Your task to perform on an android device: Do I have any events tomorrow? Image 0: 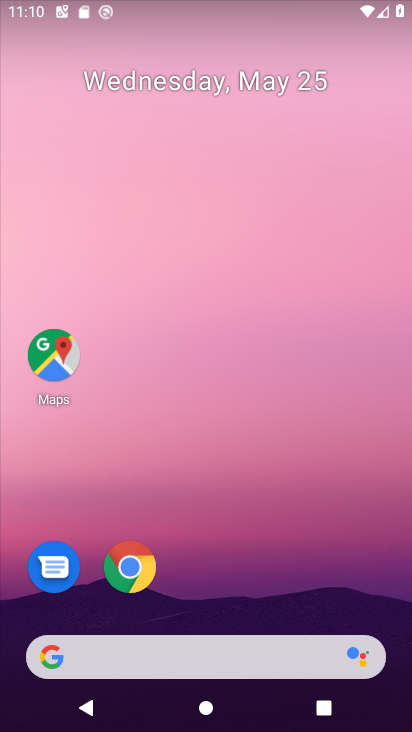
Step 0: drag from (231, 542) to (254, 55)
Your task to perform on an android device: Do I have any events tomorrow? Image 1: 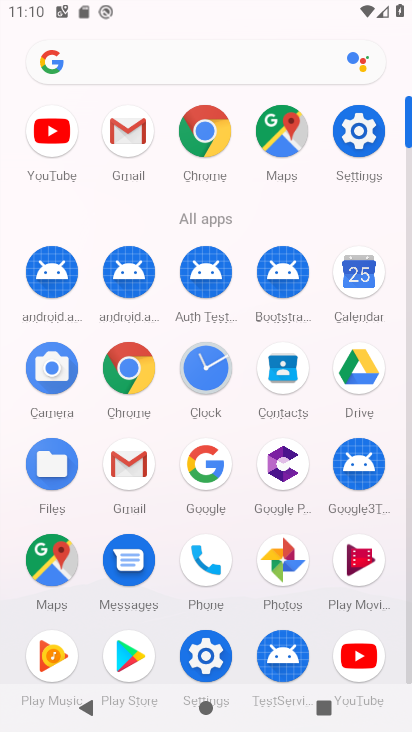
Step 1: click (353, 289)
Your task to perform on an android device: Do I have any events tomorrow? Image 2: 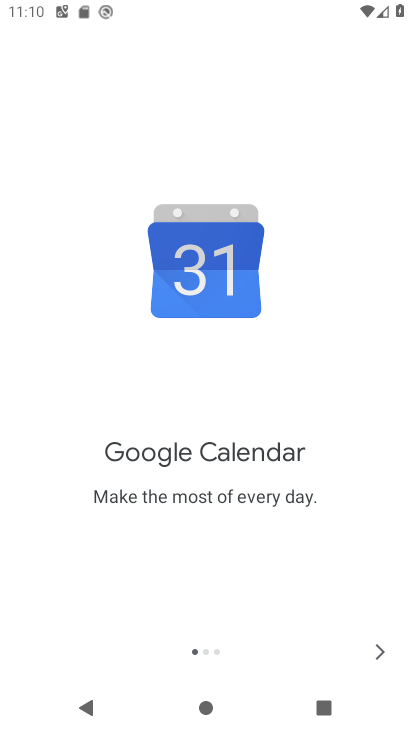
Step 2: click (381, 645)
Your task to perform on an android device: Do I have any events tomorrow? Image 3: 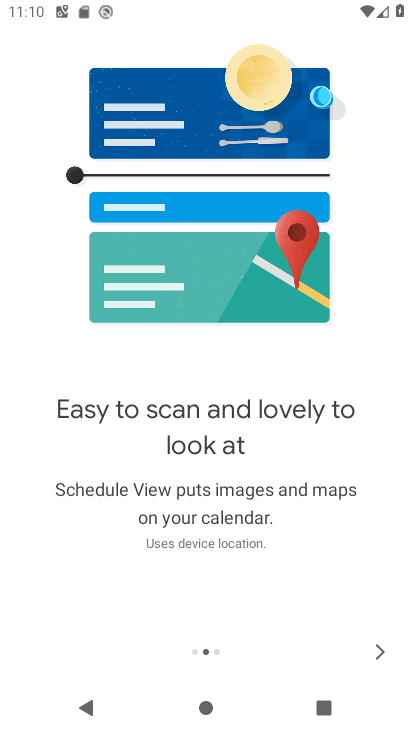
Step 3: click (381, 645)
Your task to perform on an android device: Do I have any events tomorrow? Image 4: 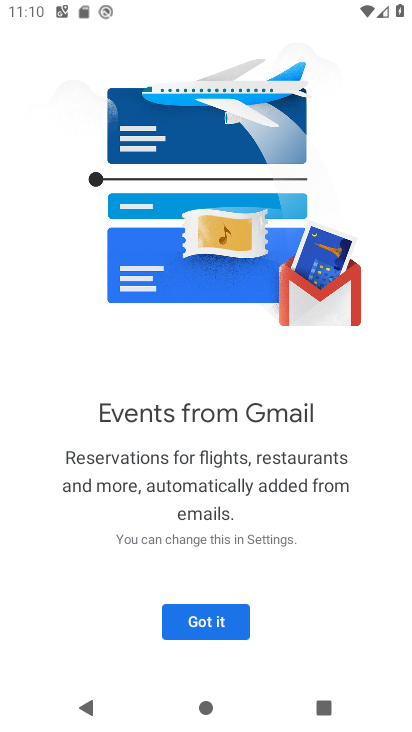
Step 4: click (230, 620)
Your task to perform on an android device: Do I have any events tomorrow? Image 5: 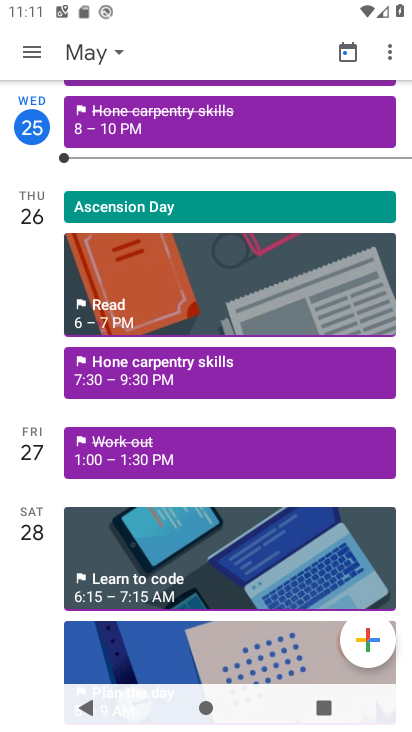
Step 5: click (37, 50)
Your task to perform on an android device: Do I have any events tomorrow? Image 6: 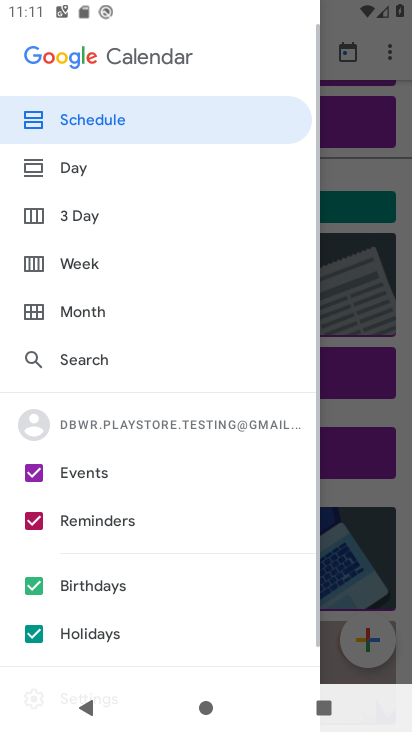
Step 6: click (107, 121)
Your task to perform on an android device: Do I have any events tomorrow? Image 7: 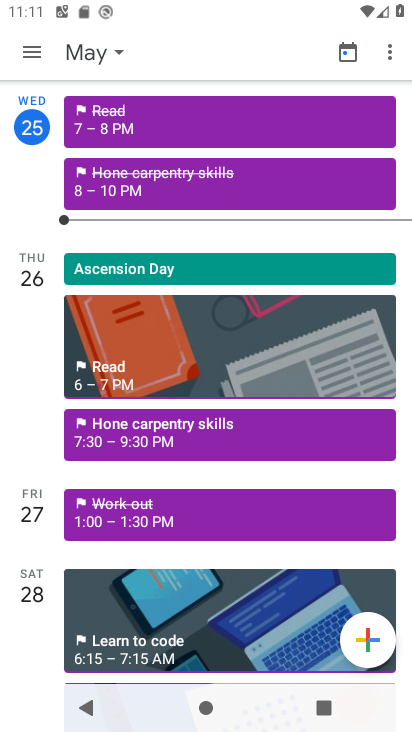
Step 7: task complete